Your task to perform on an android device: Open battery settings Image 0: 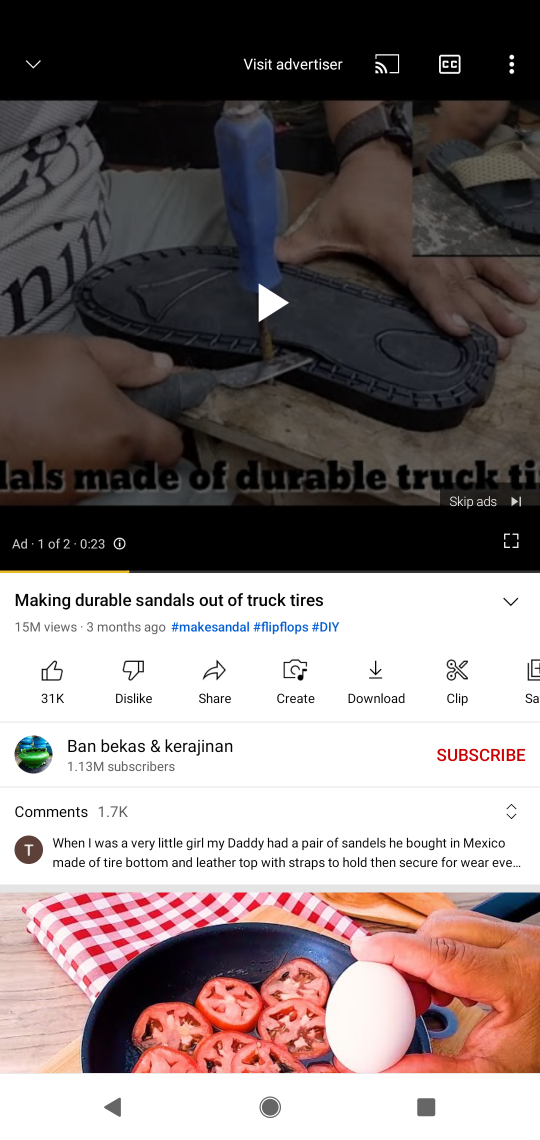
Step 0: press home button
Your task to perform on an android device: Open battery settings Image 1: 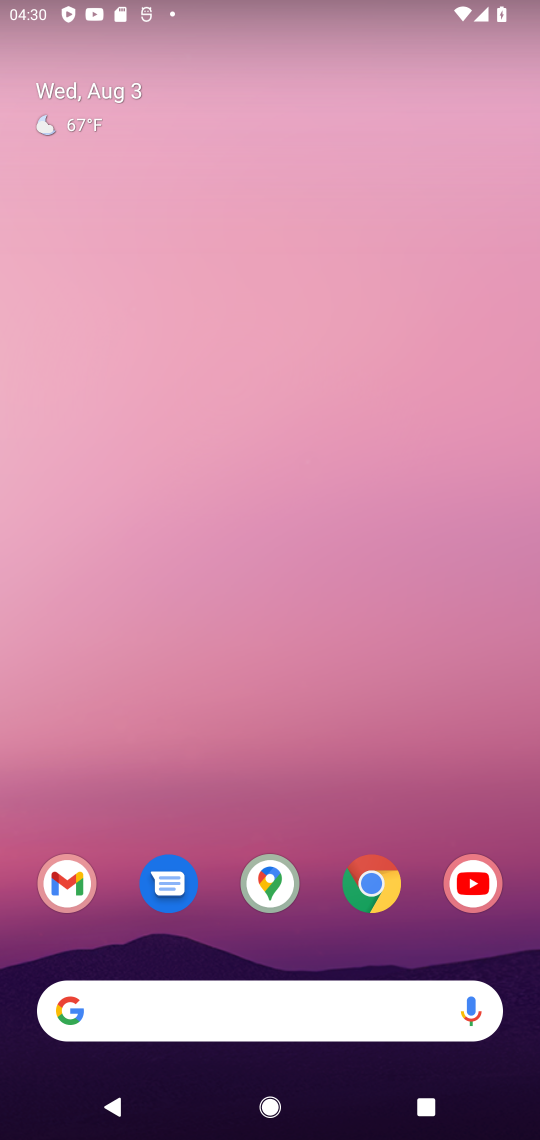
Step 1: drag from (248, 954) to (393, 0)
Your task to perform on an android device: Open battery settings Image 2: 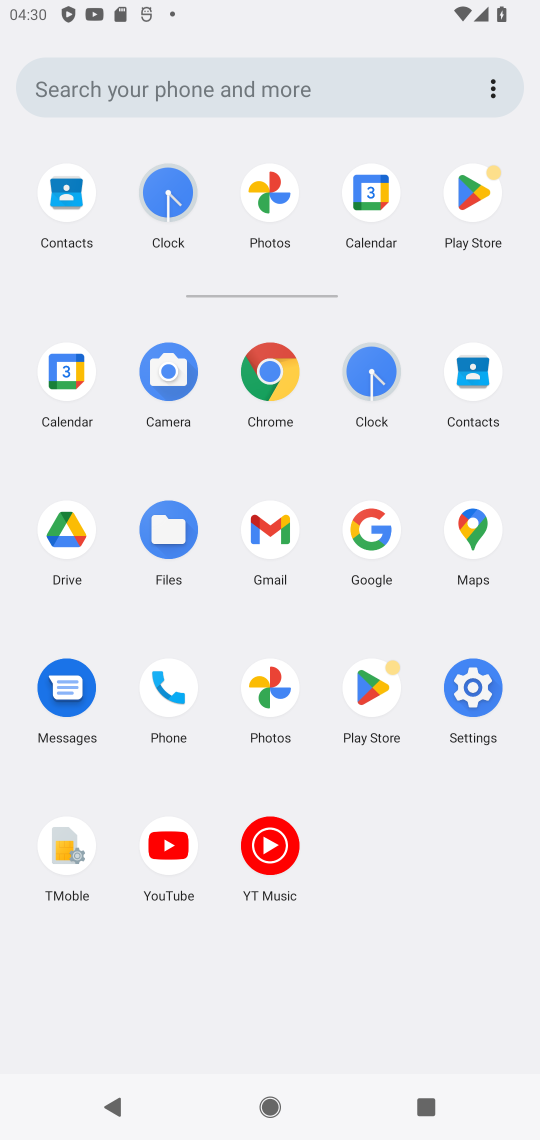
Step 2: click (488, 699)
Your task to perform on an android device: Open battery settings Image 3: 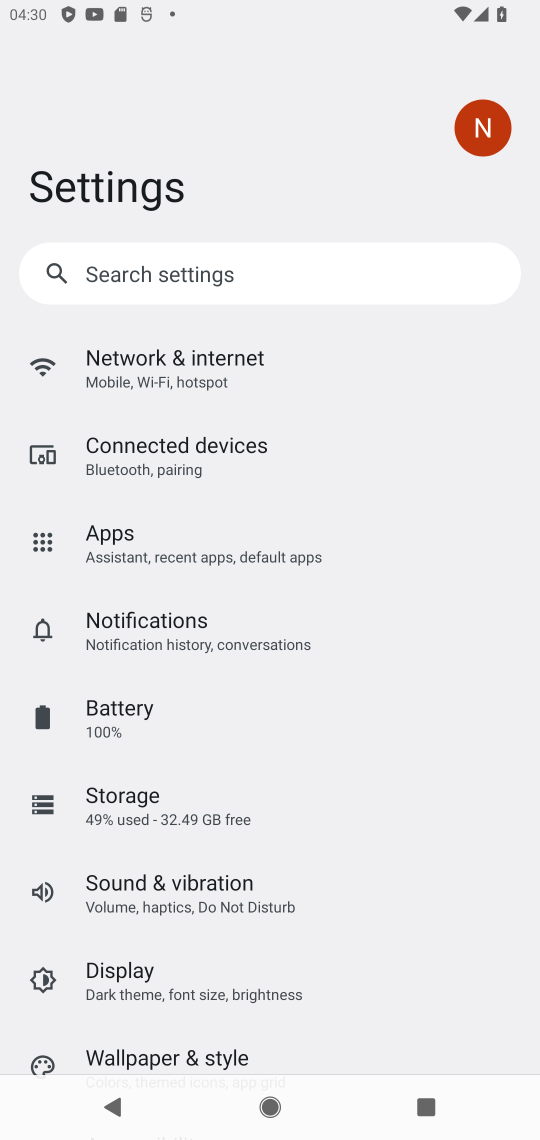
Step 3: click (153, 718)
Your task to perform on an android device: Open battery settings Image 4: 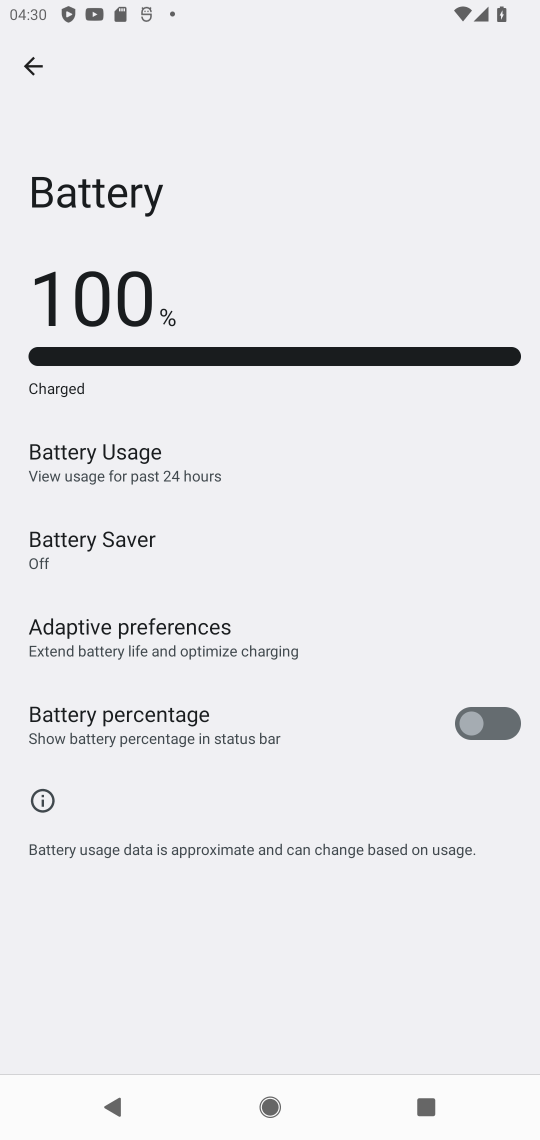
Step 4: task complete